Your task to perform on an android device: Go to accessibility settings Image 0: 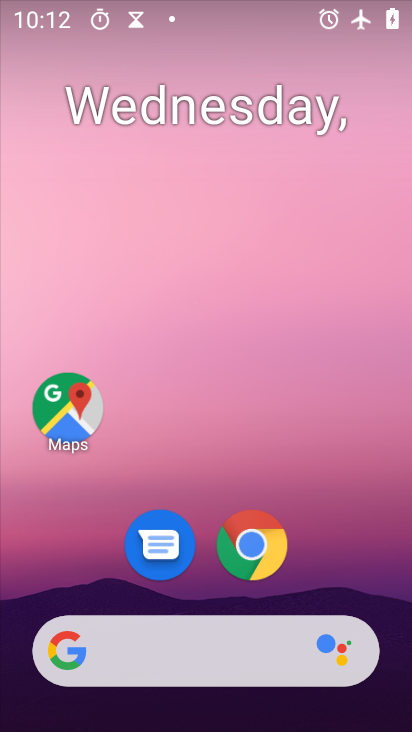
Step 0: press home button
Your task to perform on an android device: Go to accessibility settings Image 1: 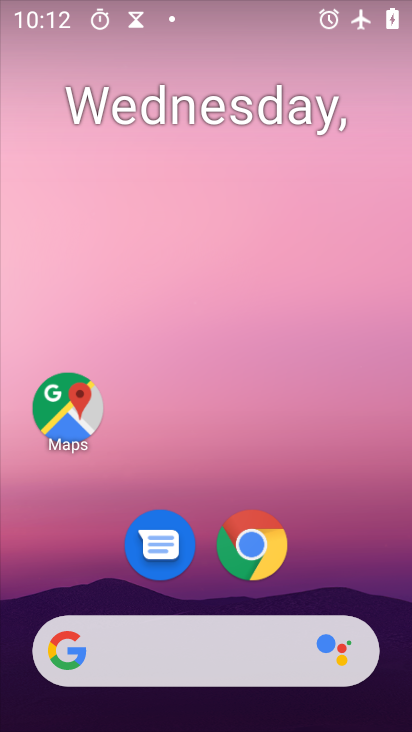
Step 1: drag from (219, 652) to (309, 95)
Your task to perform on an android device: Go to accessibility settings Image 2: 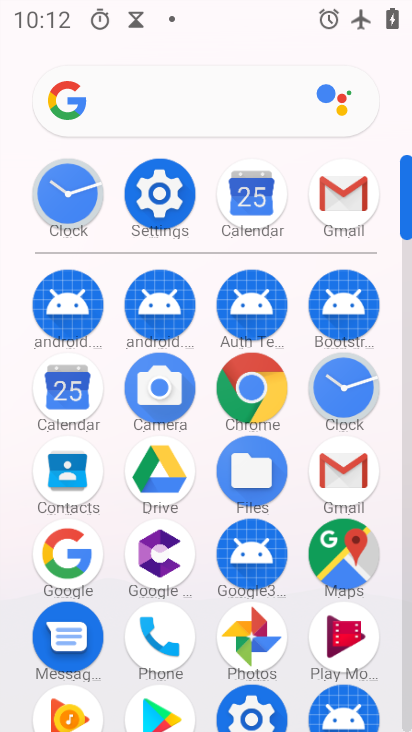
Step 2: click (171, 191)
Your task to perform on an android device: Go to accessibility settings Image 3: 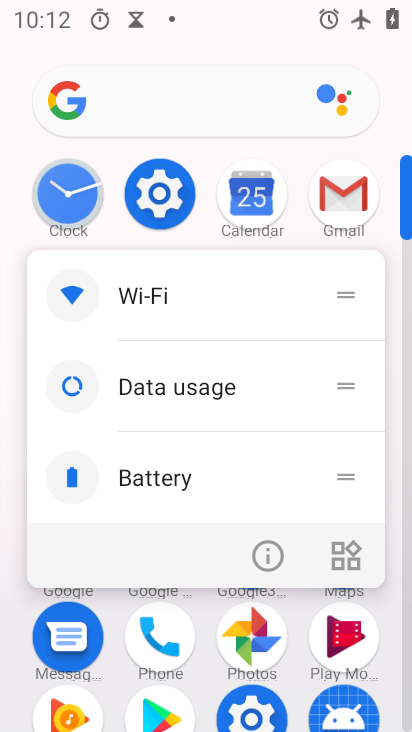
Step 3: click (155, 202)
Your task to perform on an android device: Go to accessibility settings Image 4: 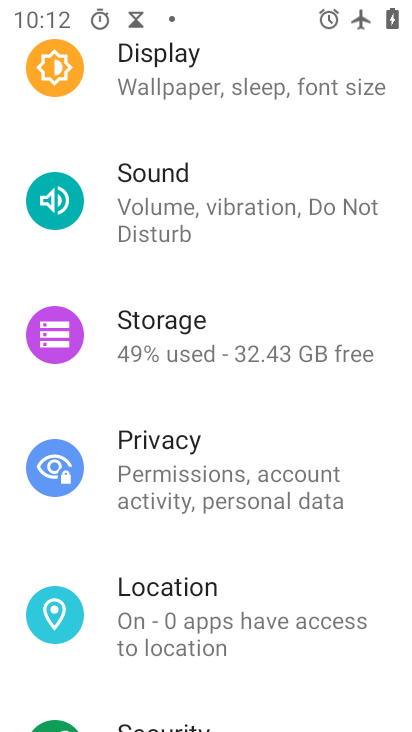
Step 4: drag from (240, 662) to (314, 50)
Your task to perform on an android device: Go to accessibility settings Image 5: 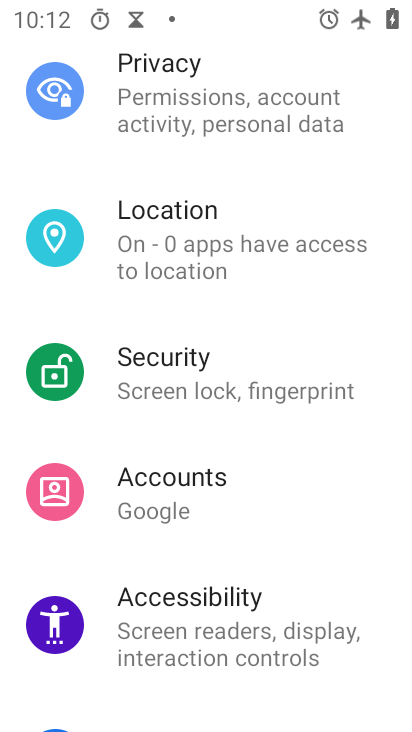
Step 5: click (198, 615)
Your task to perform on an android device: Go to accessibility settings Image 6: 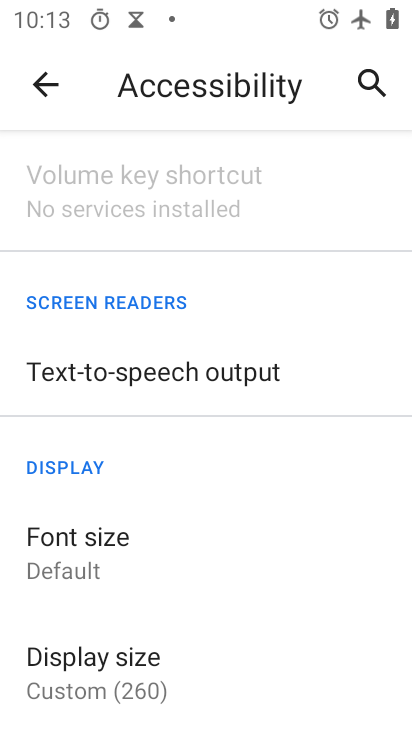
Step 6: task complete